Your task to perform on an android device: Go to eBay Image 0: 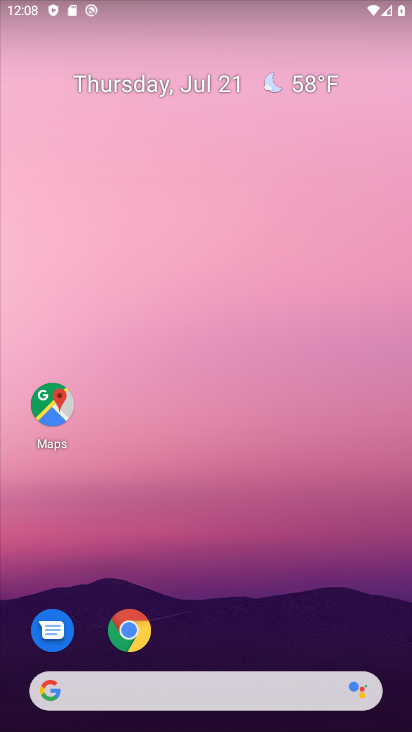
Step 0: click (137, 634)
Your task to perform on an android device: Go to eBay Image 1: 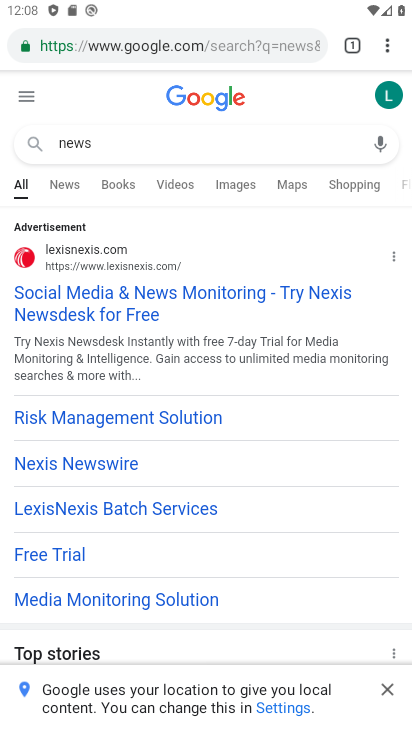
Step 1: click (183, 33)
Your task to perform on an android device: Go to eBay Image 2: 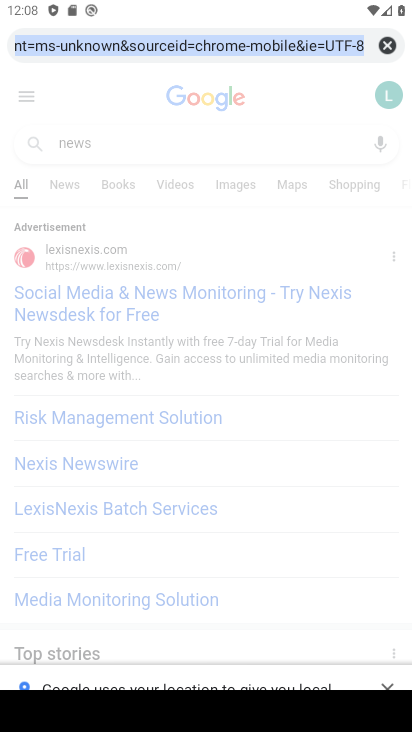
Step 2: type "ebay"
Your task to perform on an android device: Go to eBay Image 3: 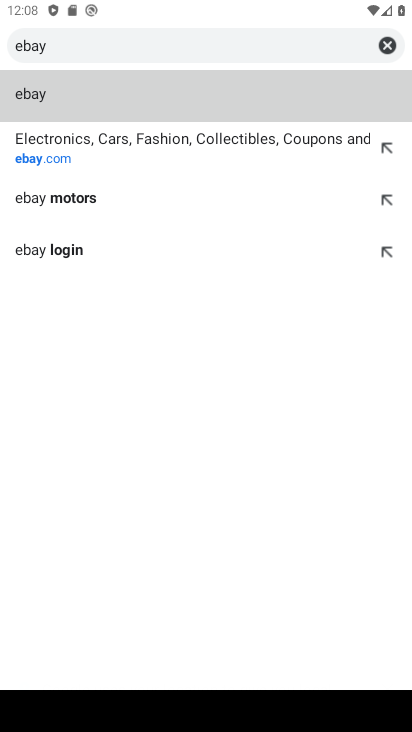
Step 3: click (88, 139)
Your task to perform on an android device: Go to eBay Image 4: 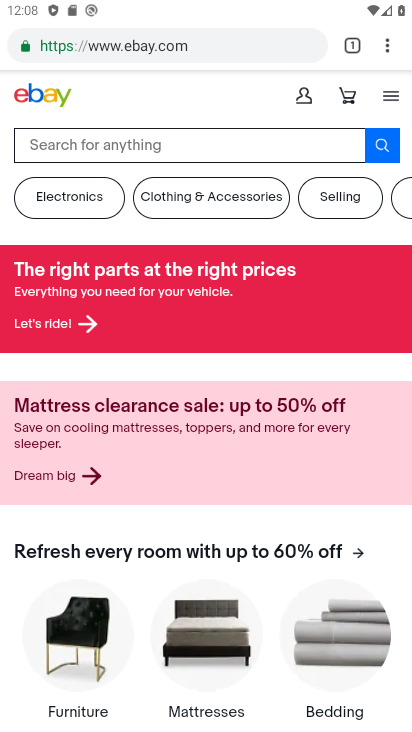
Step 4: task complete